Your task to perform on an android device: install app "Facebook Lite" Image 0: 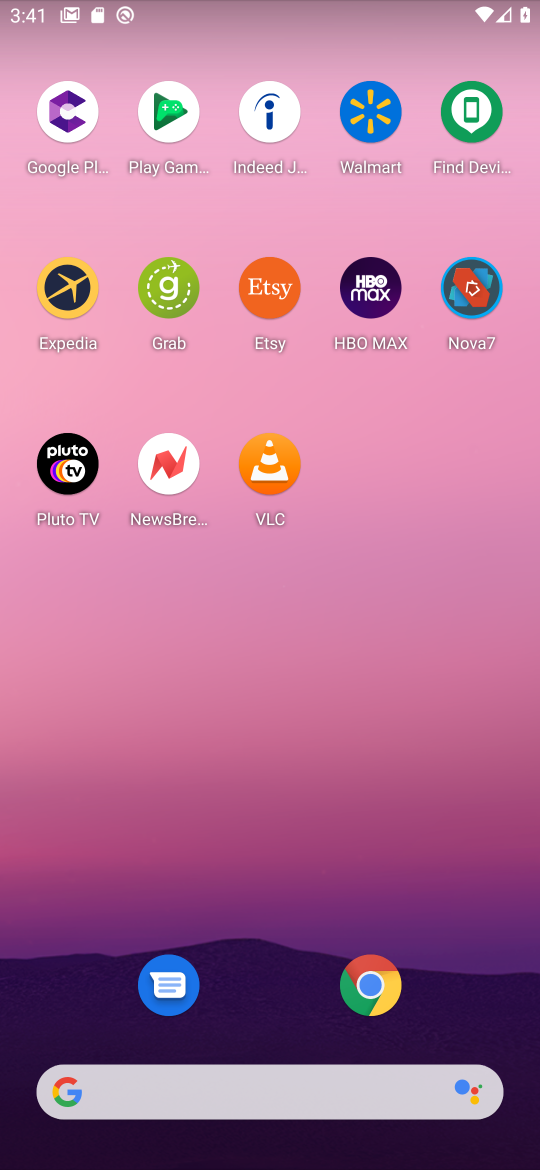
Step 0: drag from (261, 282) to (272, 28)
Your task to perform on an android device: install app "Facebook Lite" Image 1: 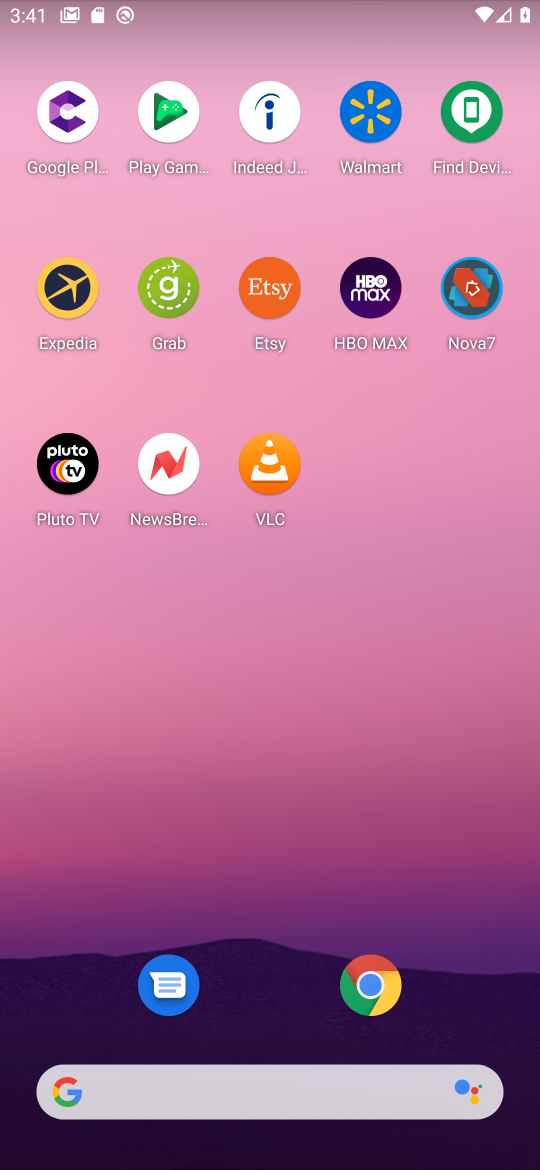
Step 1: click (240, 239)
Your task to perform on an android device: install app "Facebook Lite" Image 2: 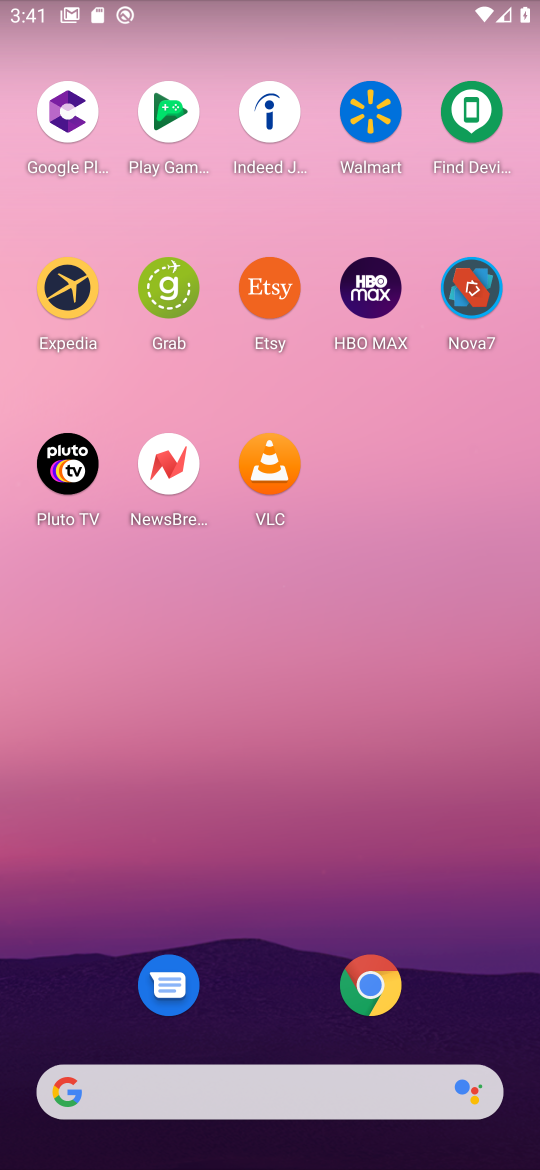
Step 2: click (267, 61)
Your task to perform on an android device: install app "Facebook Lite" Image 3: 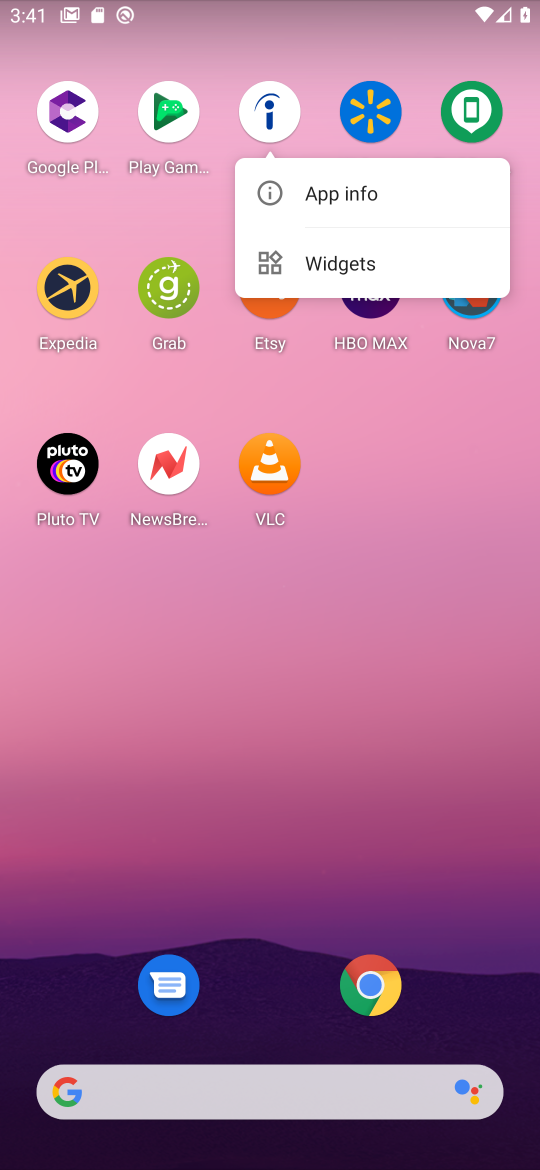
Step 3: click (259, 997)
Your task to perform on an android device: install app "Facebook Lite" Image 4: 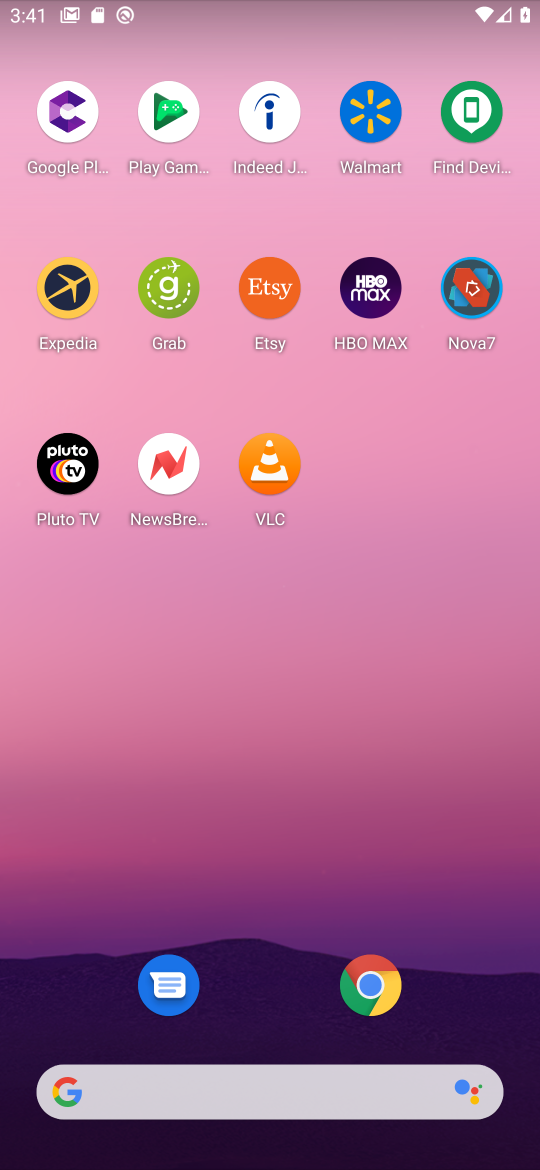
Step 4: drag from (223, 832) to (88, 0)
Your task to perform on an android device: install app "Facebook Lite" Image 5: 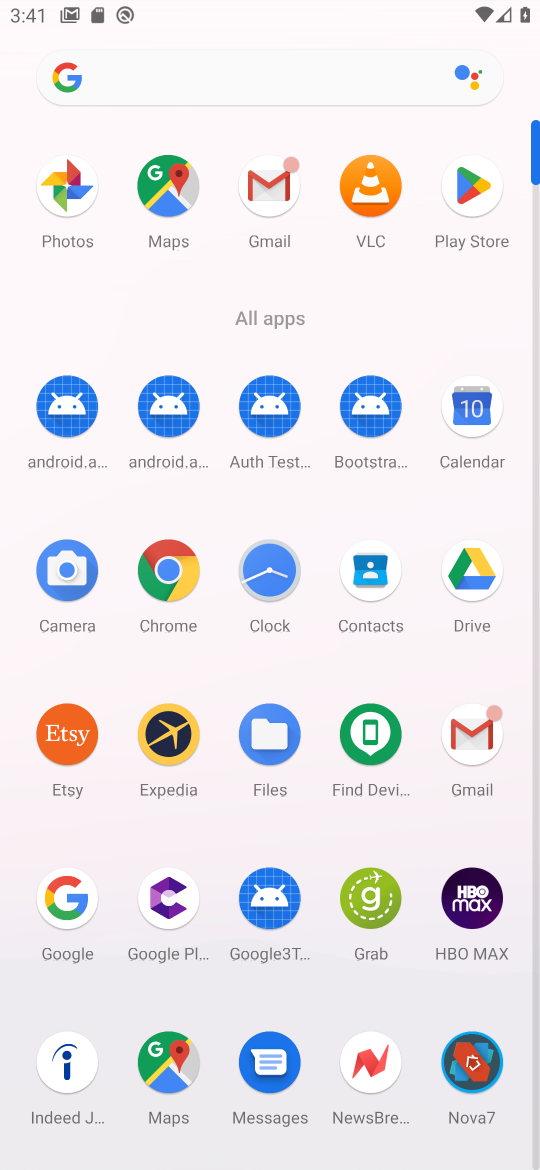
Step 5: click (464, 198)
Your task to perform on an android device: install app "Facebook Lite" Image 6: 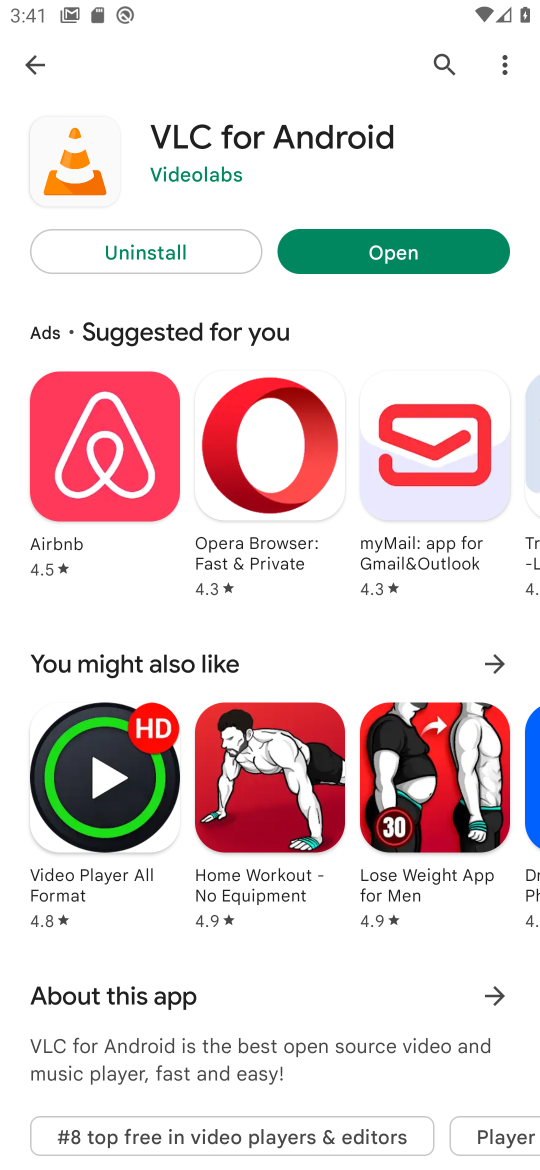
Step 6: click (31, 67)
Your task to perform on an android device: install app "Facebook Lite" Image 7: 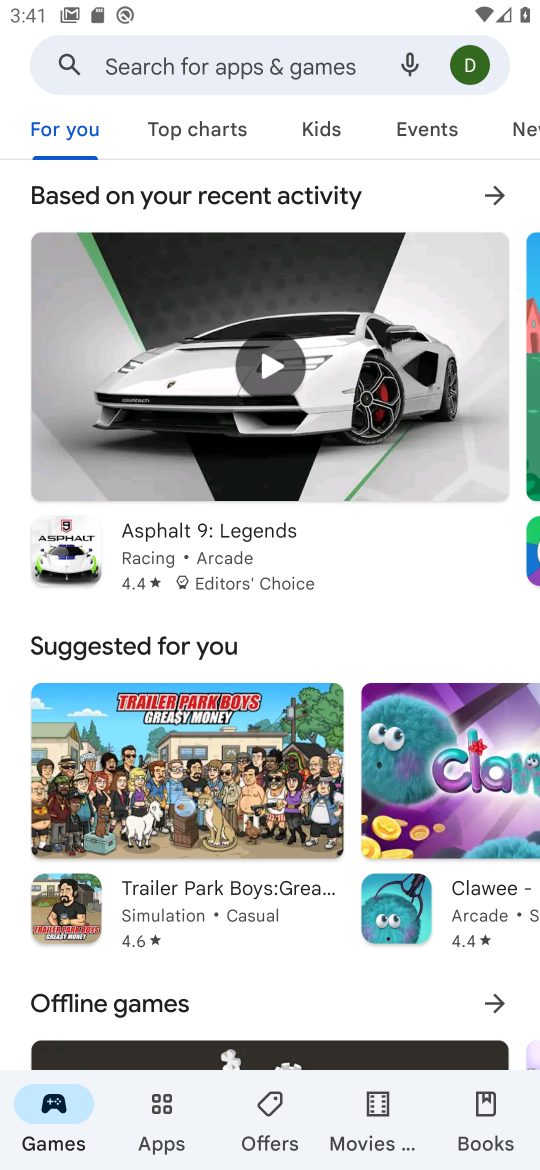
Step 7: click (222, 62)
Your task to perform on an android device: install app "Facebook Lite" Image 8: 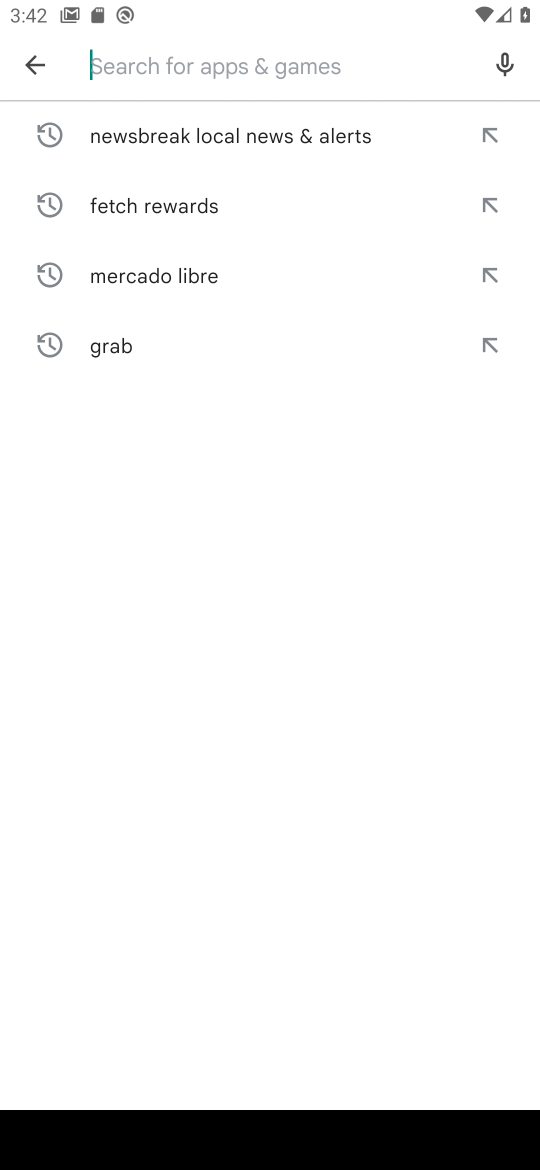
Step 8: type "Facebook Lite"
Your task to perform on an android device: install app "Facebook Lite" Image 9: 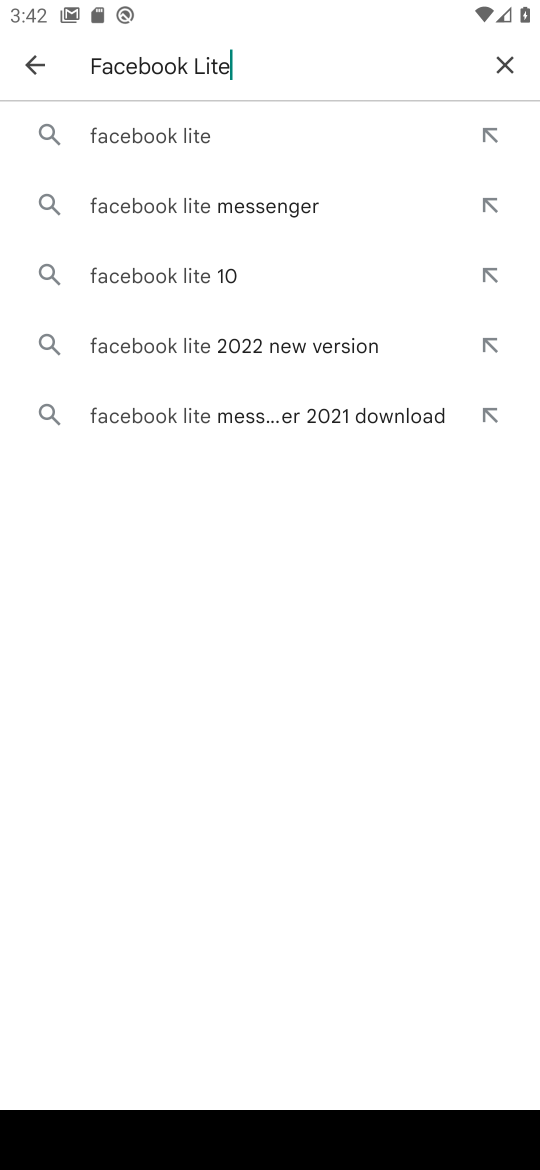
Step 9: click (136, 137)
Your task to perform on an android device: install app "Facebook Lite" Image 10: 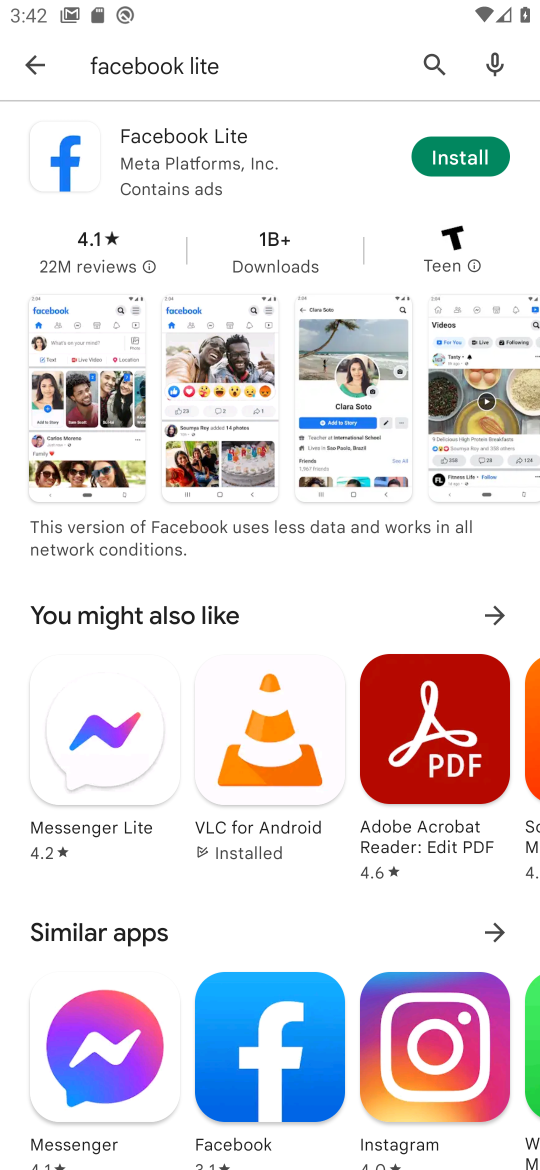
Step 10: click (444, 152)
Your task to perform on an android device: install app "Facebook Lite" Image 11: 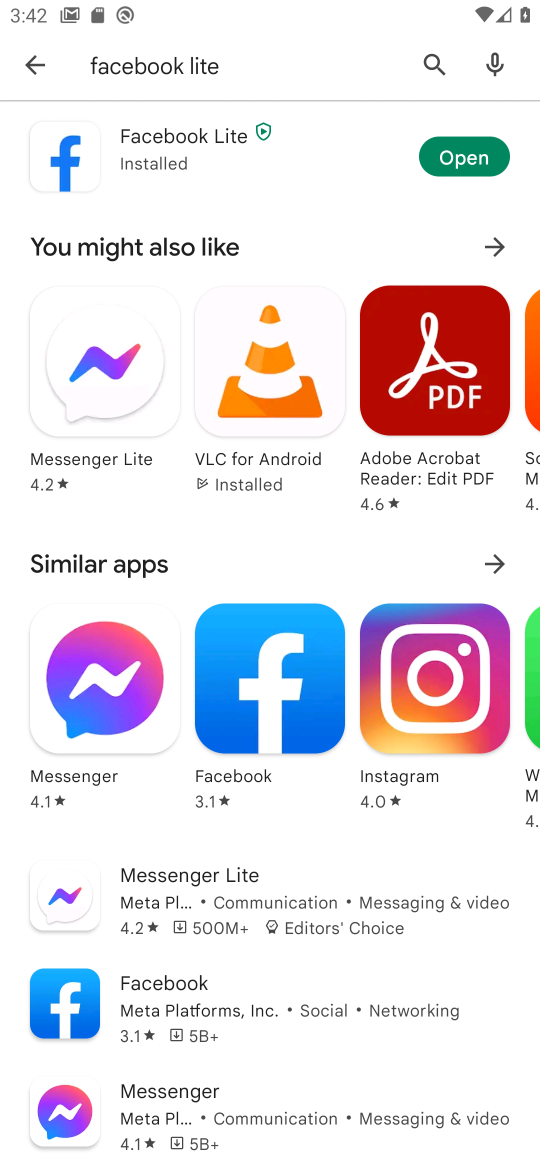
Step 11: task complete